Your task to perform on an android device: check android version Image 0: 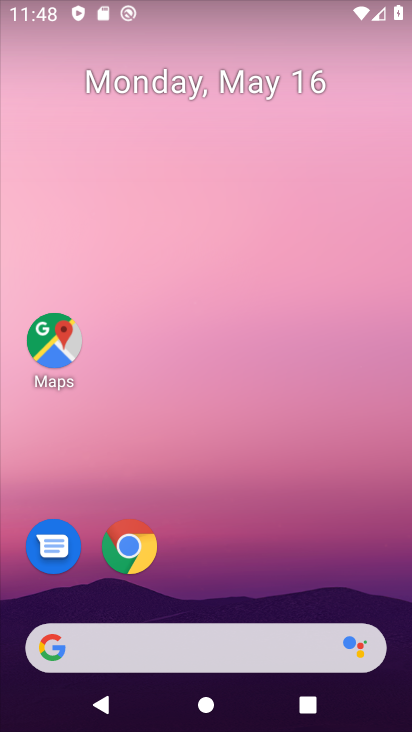
Step 0: drag from (218, 553) to (203, 104)
Your task to perform on an android device: check android version Image 1: 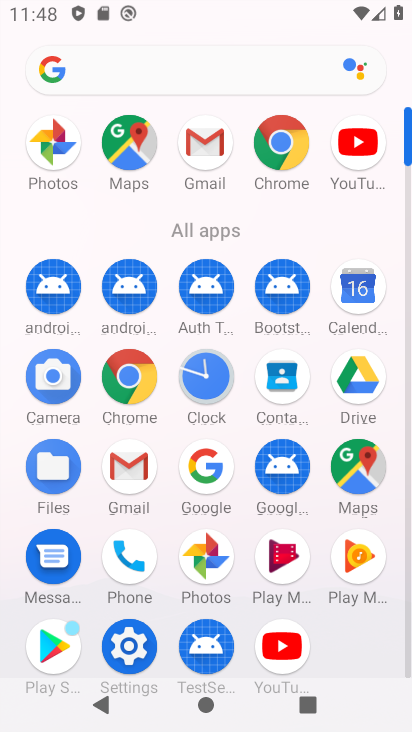
Step 1: click (121, 650)
Your task to perform on an android device: check android version Image 2: 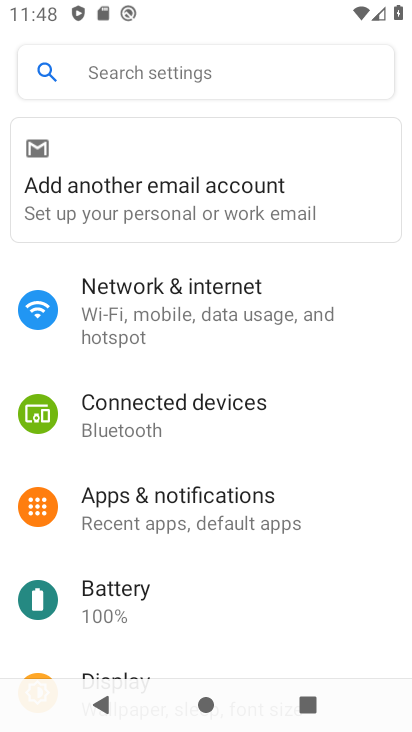
Step 2: drag from (216, 586) to (244, 81)
Your task to perform on an android device: check android version Image 3: 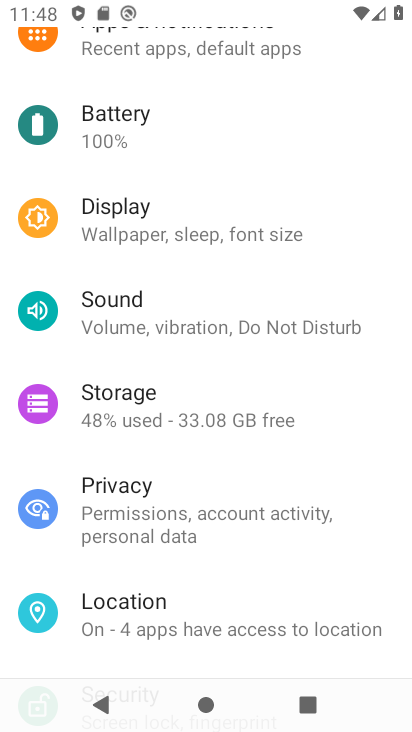
Step 3: drag from (283, 498) to (263, 90)
Your task to perform on an android device: check android version Image 4: 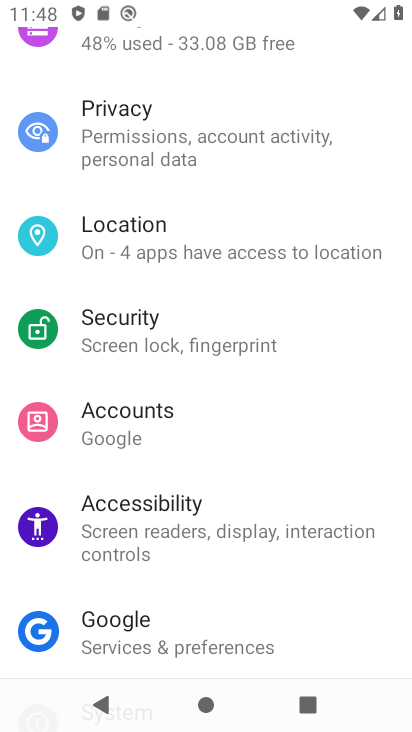
Step 4: drag from (261, 537) to (255, 132)
Your task to perform on an android device: check android version Image 5: 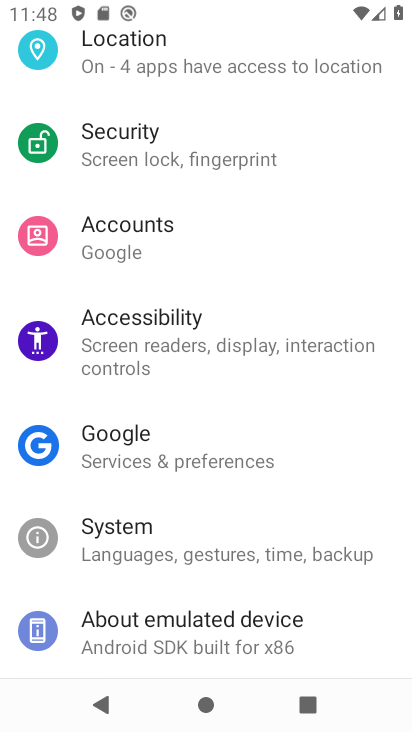
Step 5: click (182, 637)
Your task to perform on an android device: check android version Image 6: 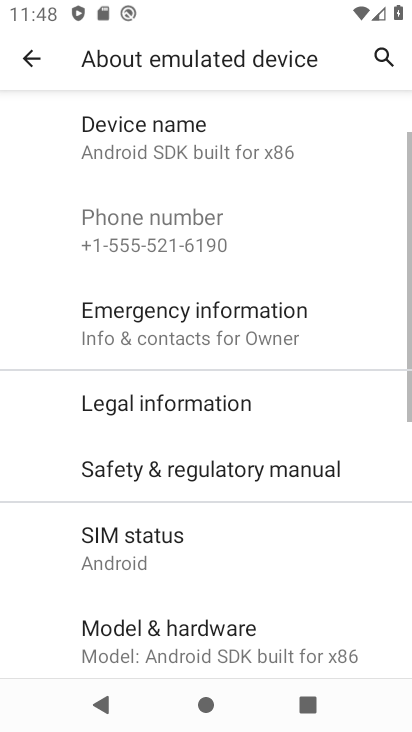
Step 6: drag from (265, 581) to (259, 140)
Your task to perform on an android device: check android version Image 7: 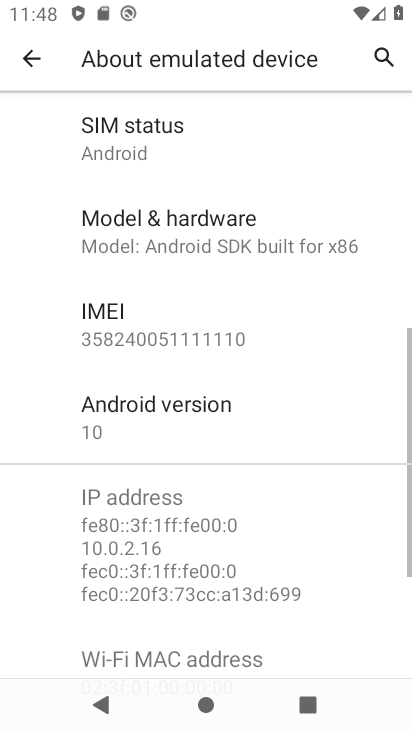
Step 7: click (171, 501)
Your task to perform on an android device: check android version Image 8: 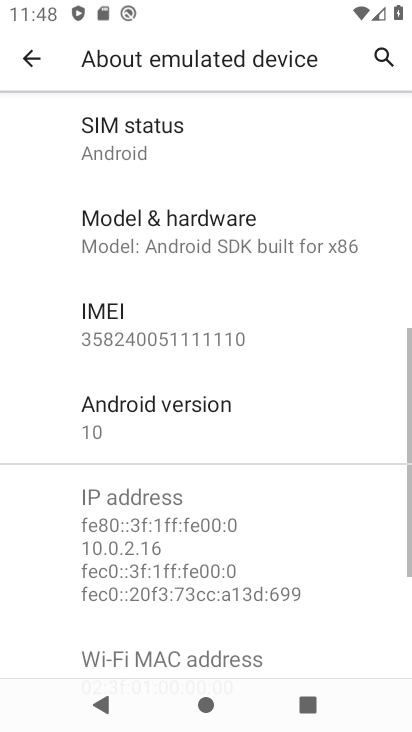
Step 8: click (119, 415)
Your task to perform on an android device: check android version Image 9: 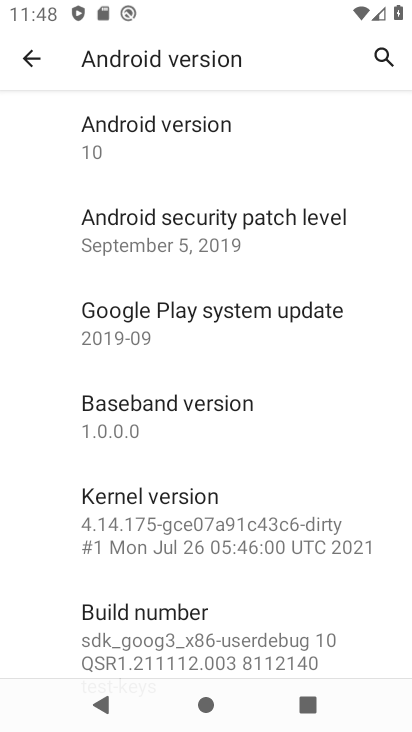
Step 9: task complete